Your task to perform on an android device: Open calendar and show me the first week of next month Image 0: 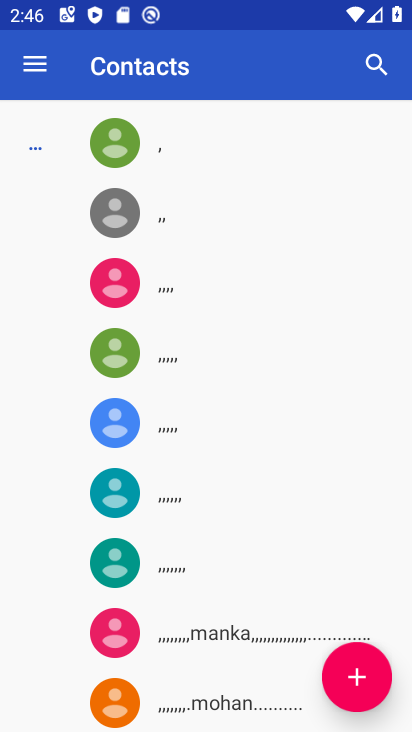
Step 0: press home button
Your task to perform on an android device: Open calendar and show me the first week of next month Image 1: 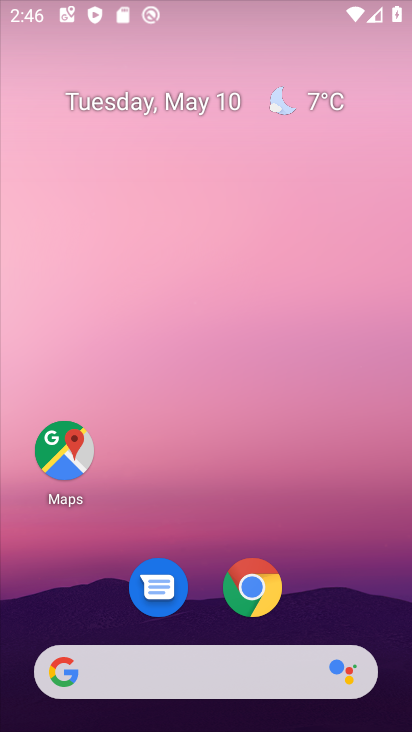
Step 1: drag from (177, 507) to (166, 8)
Your task to perform on an android device: Open calendar and show me the first week of next month Image 2: 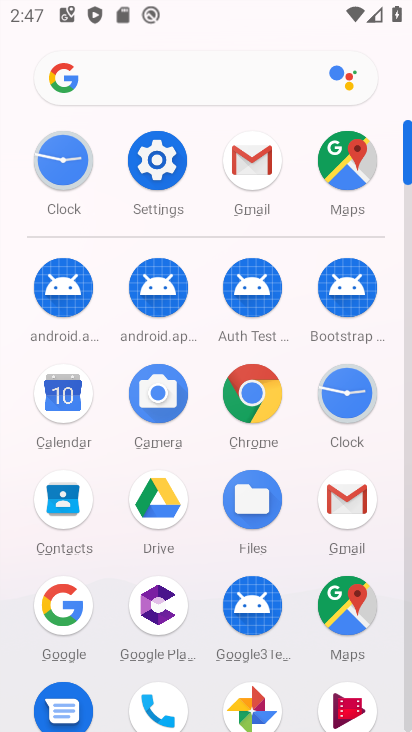
Step 2: click (68, 406)
Your task to perform on an android device: Open calendar and show me the first week of next month Image 3: 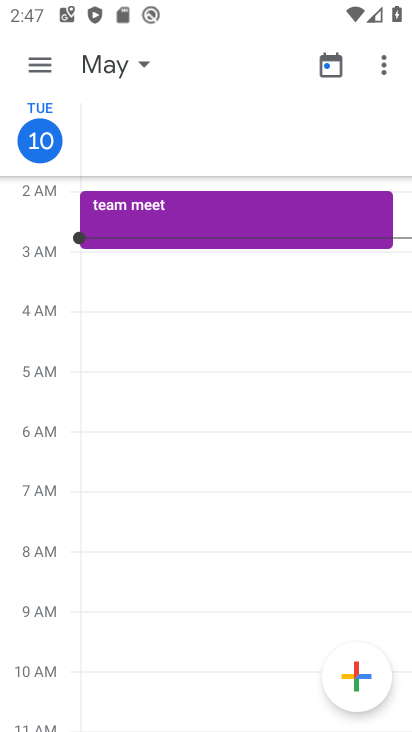
Step 3: click (47, 56)
Your task to perform on an android device: Open calendar and show me the first week of next month Image 4: 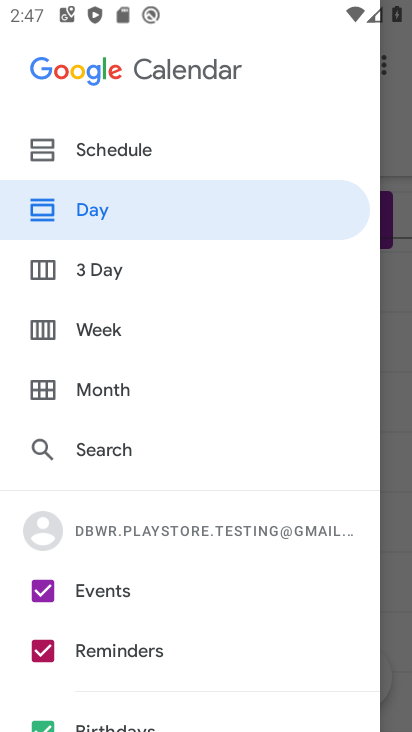
Step 4: click (397, 255)
Your task to perform on an android device: Open calendar and show me the first week of next month Image 5: 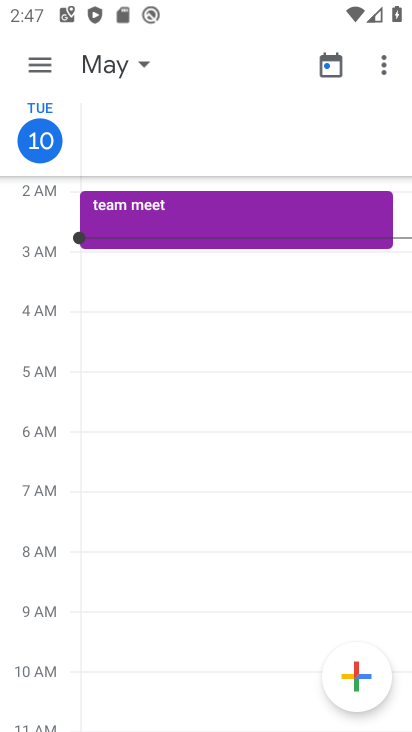
Step 5: click (45, 54)
Your task to perform on an android device: Open calendar and show me the first week of next month Image 6: 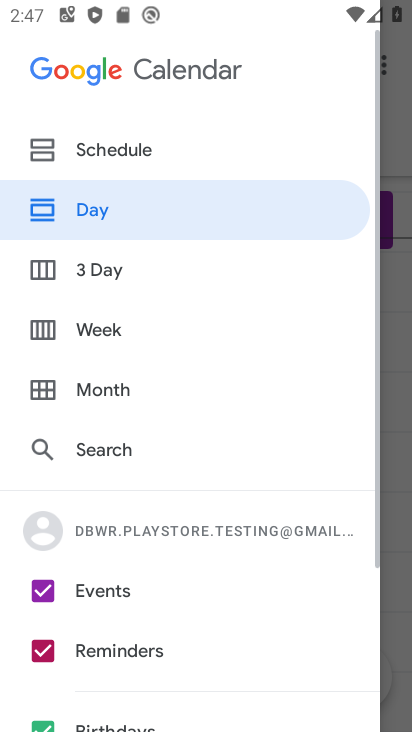
Step 6: click (119, 327)
Your task to perform on an android device: Open calendar and show me the first week of next month Image 7: 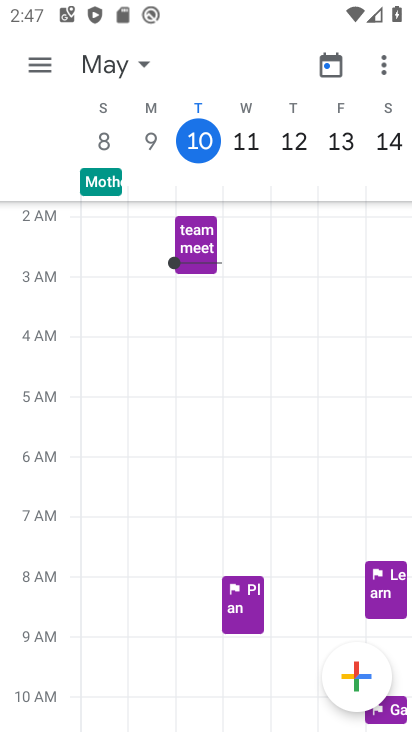
Step 7: click (143, 67)
Your task to perform on an android device: Open calendar and show me the first week of next month Image 8: 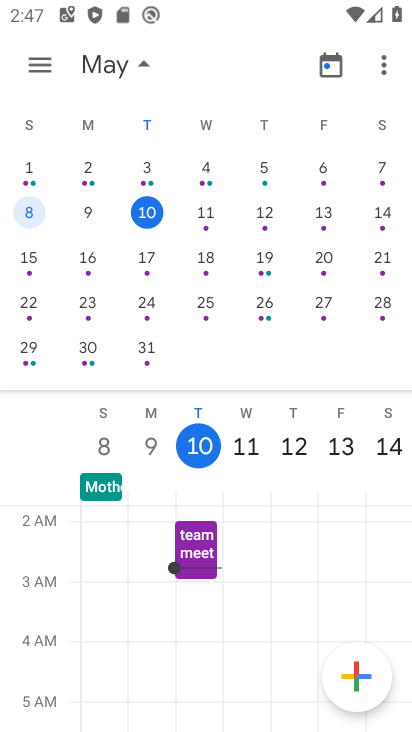
Step 8: drag from (369, 234) to (1, 195)
Your task to perform on an android device: Open calendar and show me the first week of next month Image 9: 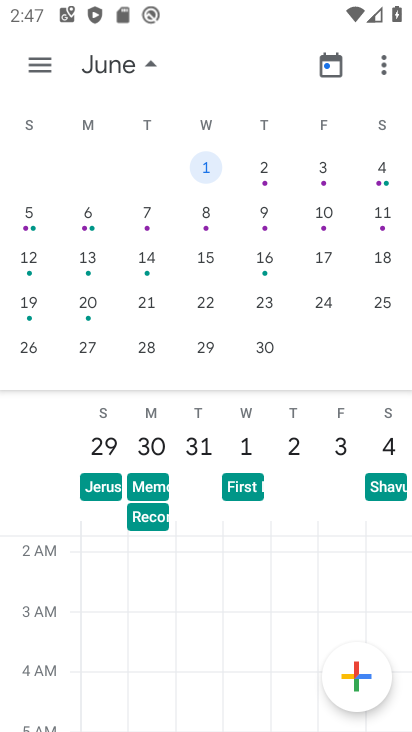
Step 9: click (30, 210)
Your task to perform on an android device: Open calendar and show me the first week of next month Image 10: 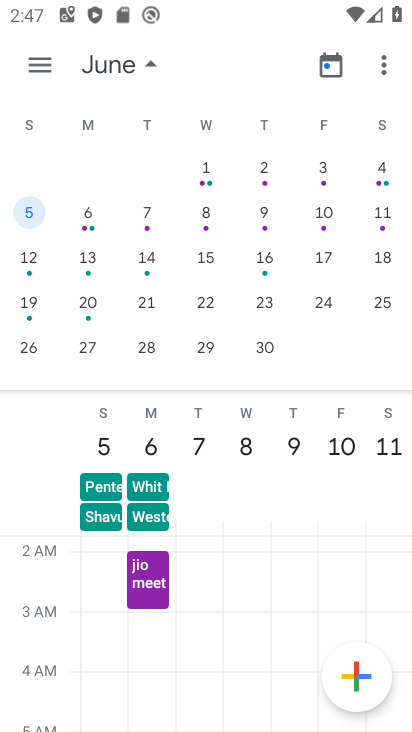
Step 10: click (94, 215)
Your task to perform on an android device: Open calendar and show me the first week of next month Image 11: 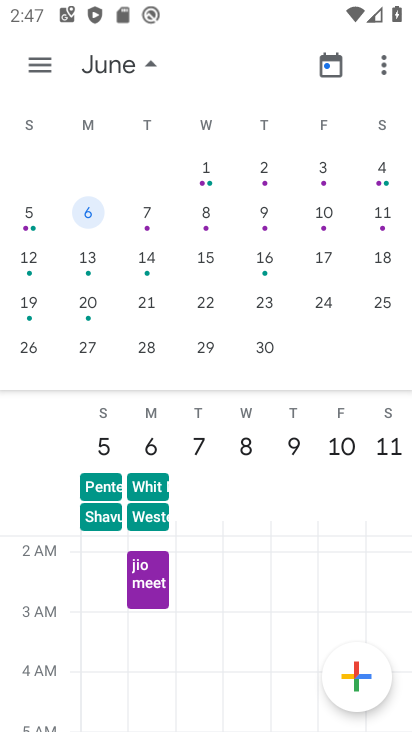
Step 11: task complete